Your task to perform on an android device: Open display settings Image 0: 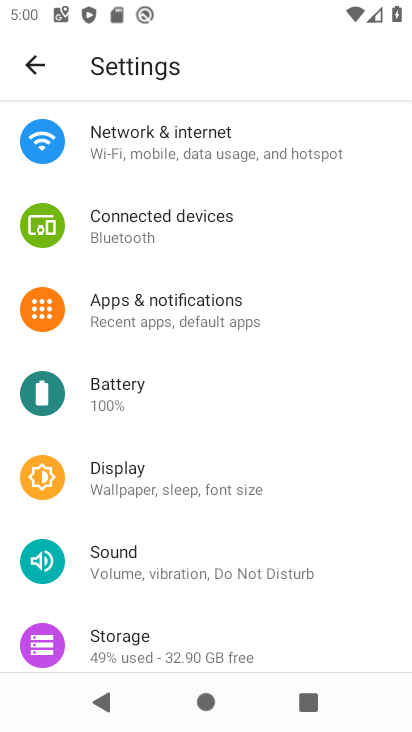
Step 0: click (129, 508)
Your task to perform on an android device: Open display settings Image 1: 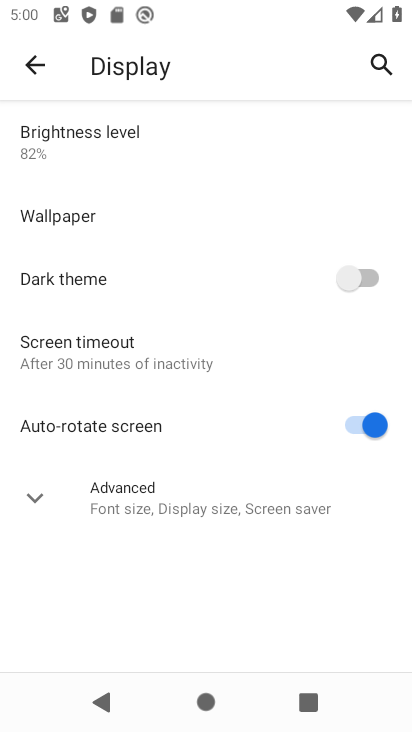
Step 1: task complete